Your task to perform on an android device: Search for Italian restaurants on Maps Image 0: 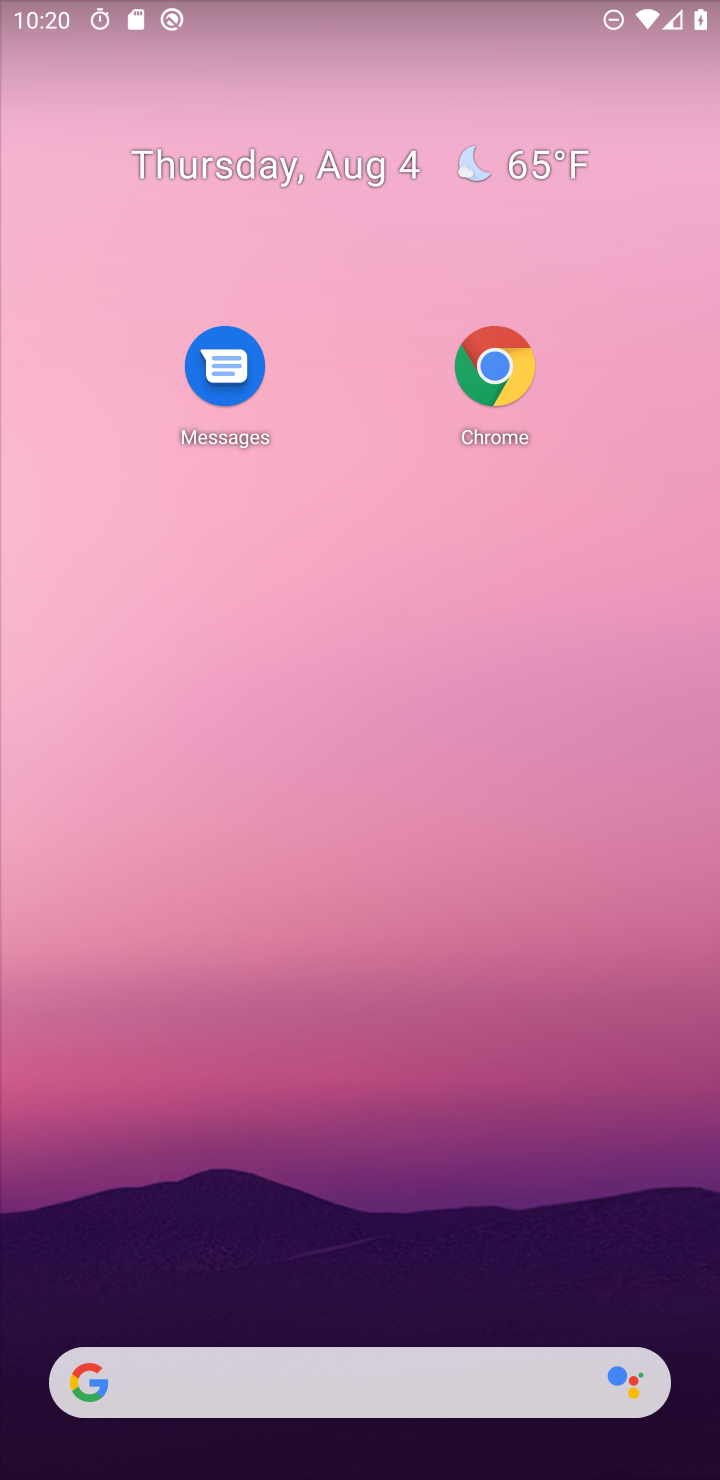
Step 0: drag from (468, 1276) to (479, 472)
Your task to perform on an android device: Search for Italian restaurants on Maps Image 1: 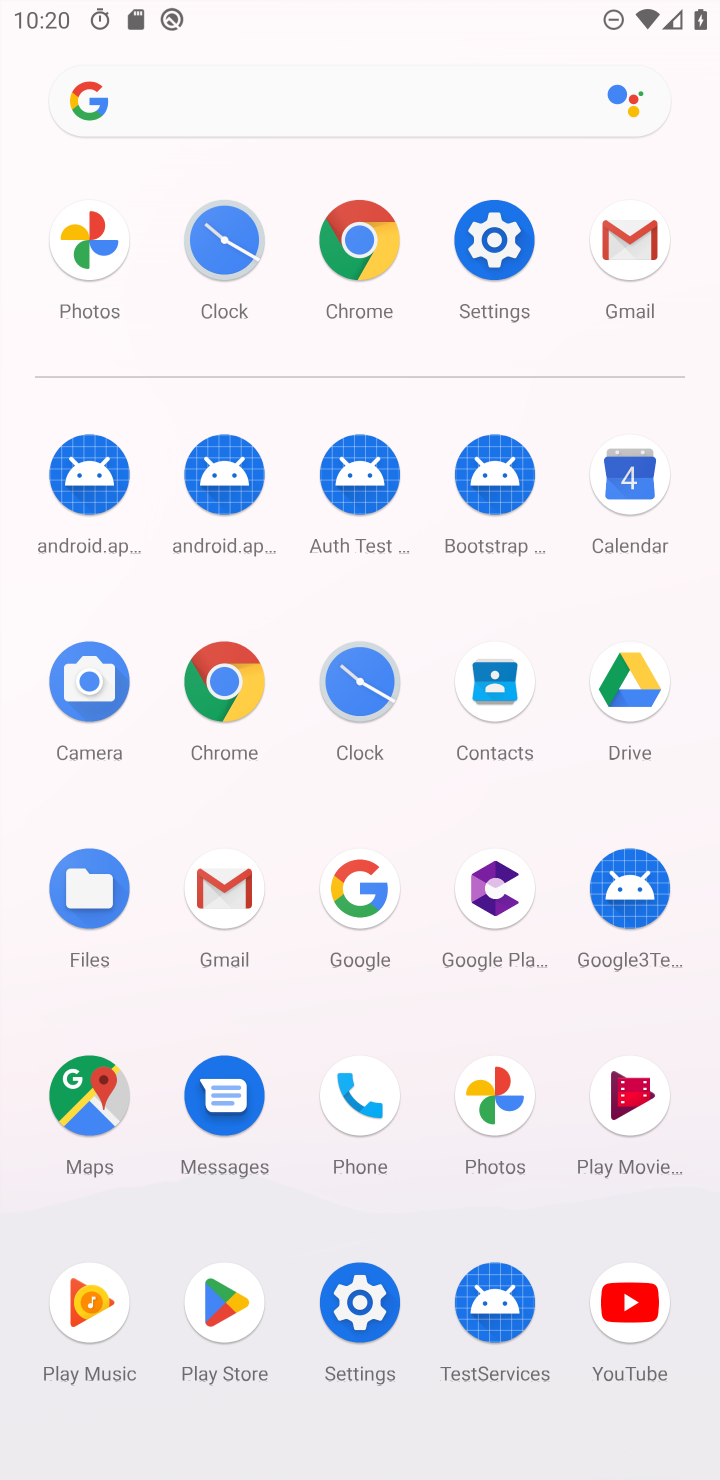
Step 1: click (114, 1094)
Your task to perform on an android device: Search for Italian restaurants on Maps Image 2: 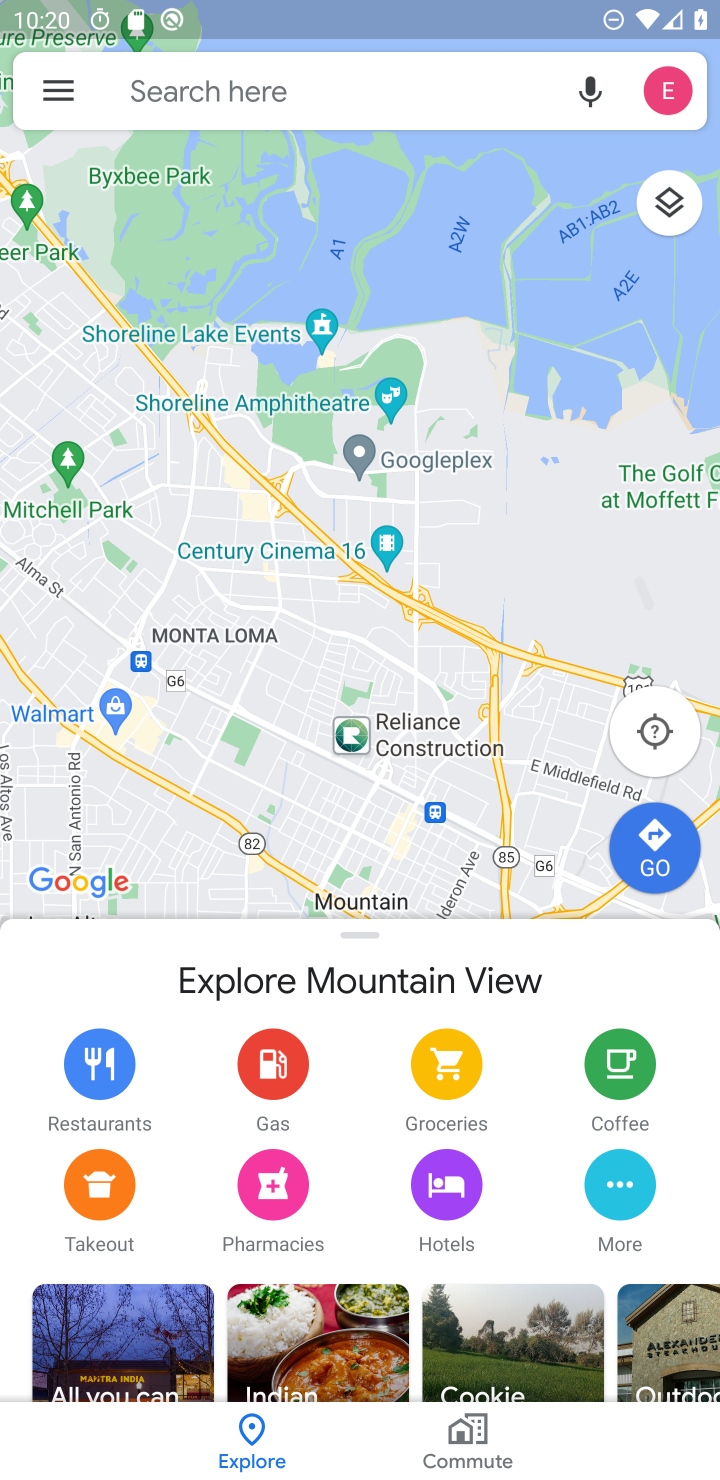
Step 2: click (296, 94)
Your task to perform on an android device: Search for Italian restaurants on Maps Image 3: 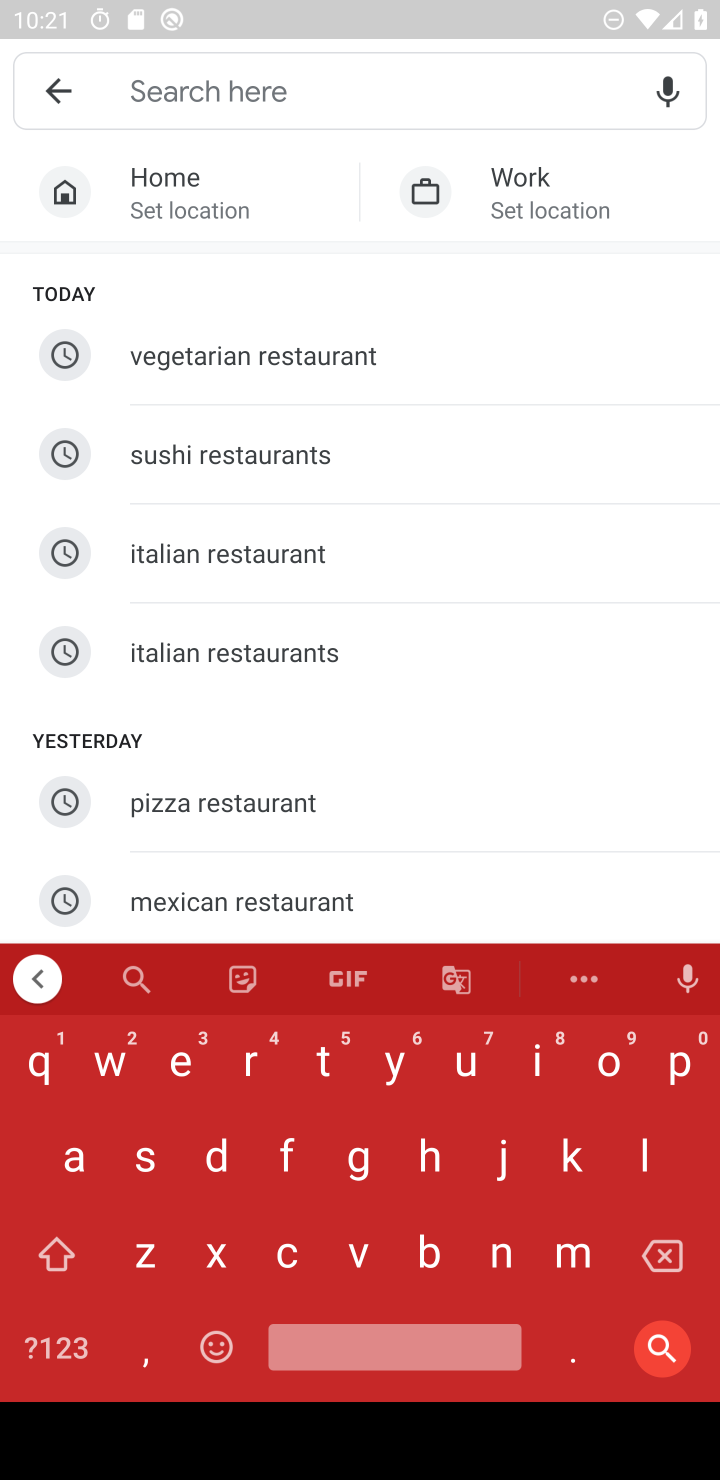
Step 3: click (310, 568)
Your task to perform on an android device: Search for Italian restaurants on Maps Image 4: 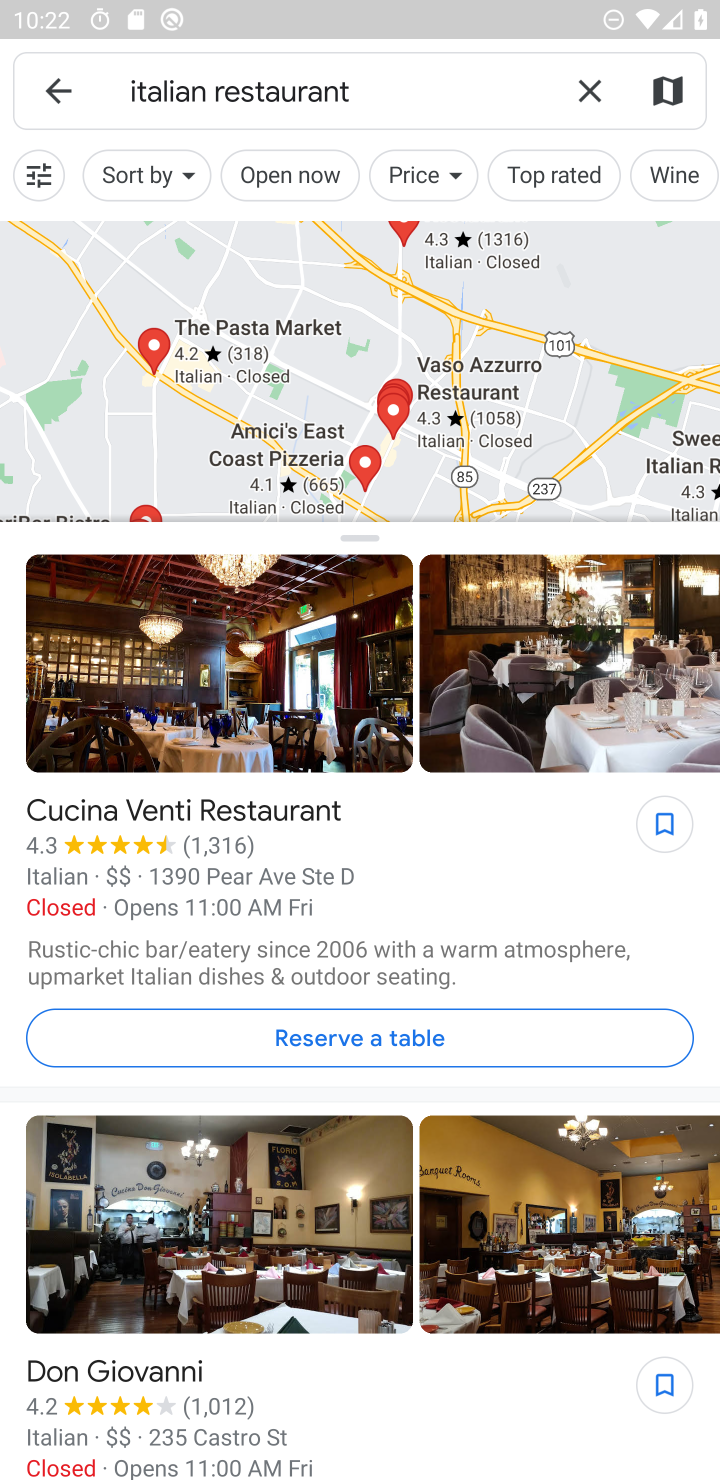
Step 4: task complete